Your task to perform on an android device: Check the news Image 0: 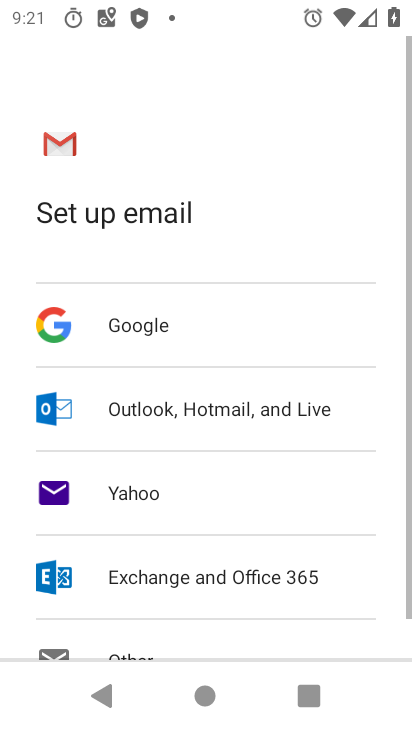
Step 0: press home button
Your task to perform on an android device: Check the news Image 1: 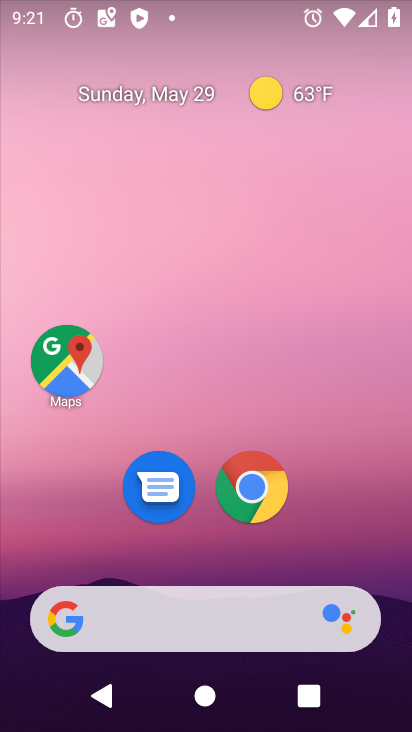
Step 1: drag from (198, 631) to (247, 151)
Your task to perform on an android device: Check the news Image 2: 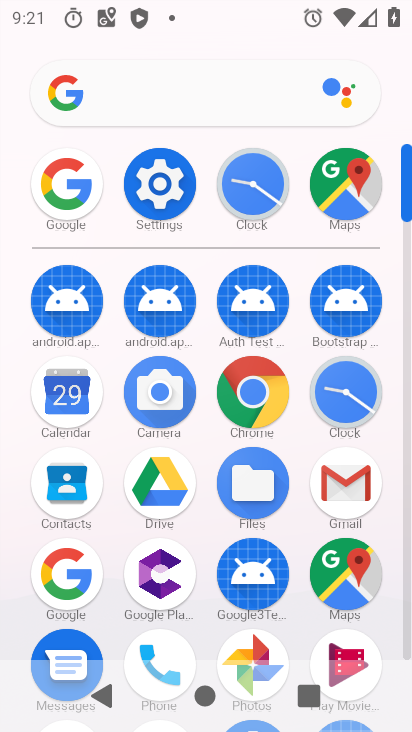
Step 2: drag from (230, 499) to (244, 255)
Your task to perform on an android device: Check the news Image 3: 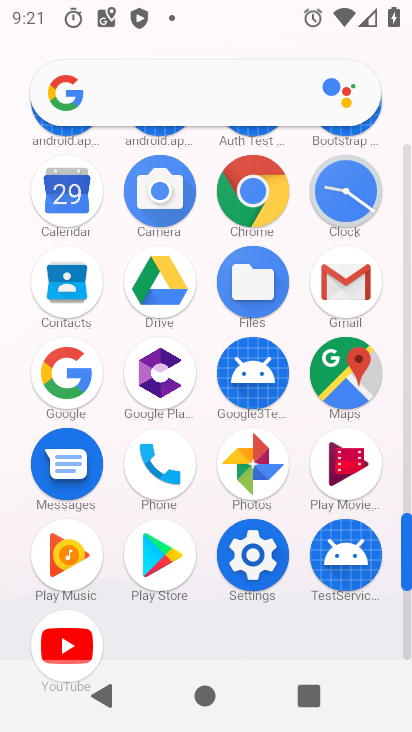
Step 3: click (65, 396)
Your task to perform on an android device: Check the news Image 4: 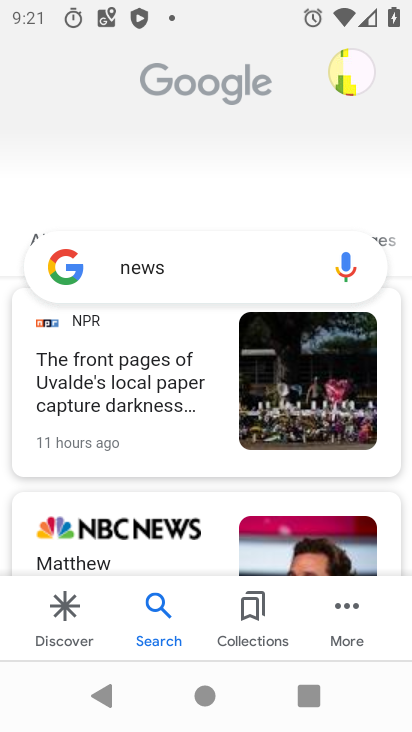
Step 4: click (195, 282)
Your task to perform on an android device: Check the news Image 5: 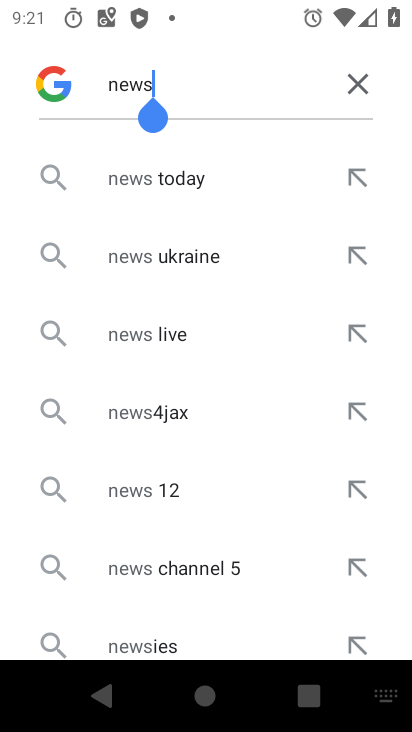
Step 5: task complete